Your task to perform on an android device: turn off wifi Image 0: 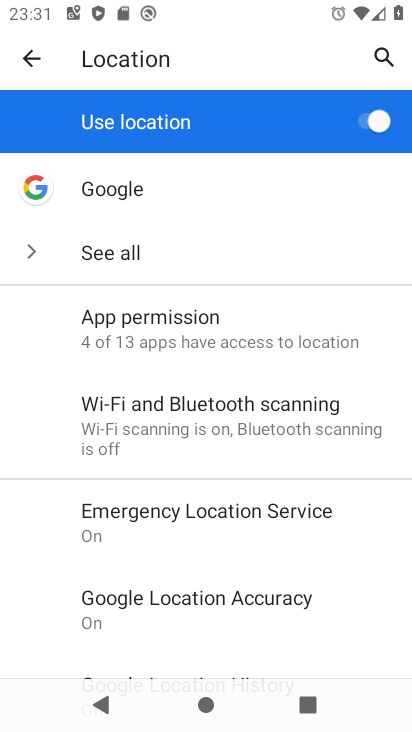
Step 0: press home button
Your task to perform on an android device: turn off wifi Image 1: 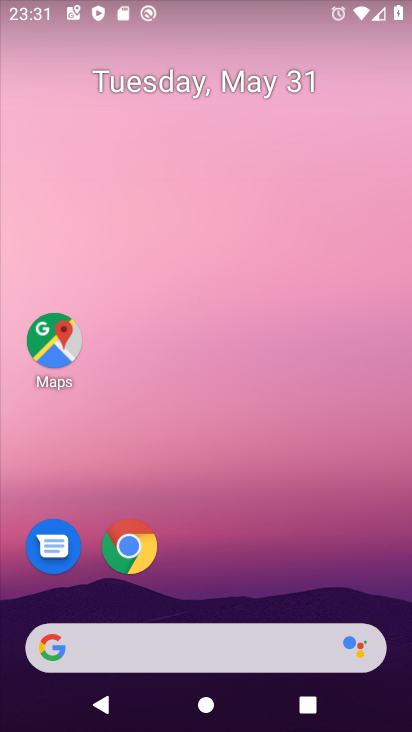
Step 1: drag from (257, 563) to (241, 164)
Your task to perform on an android device: turn off wifi Image 2: 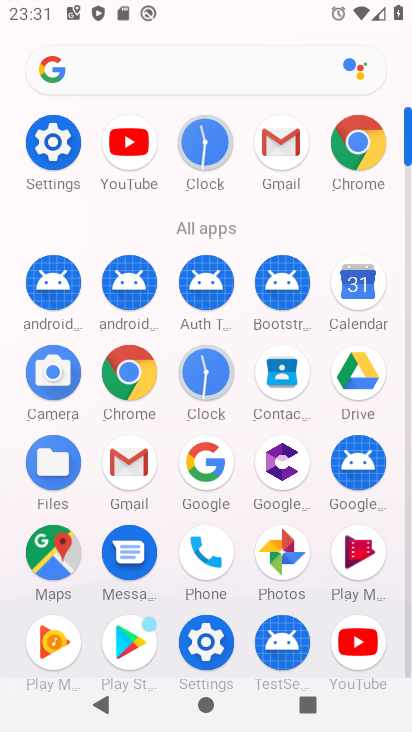
Step 2: click (50, 167)
Your task to perform on an android device: turn off wifi Image 3: 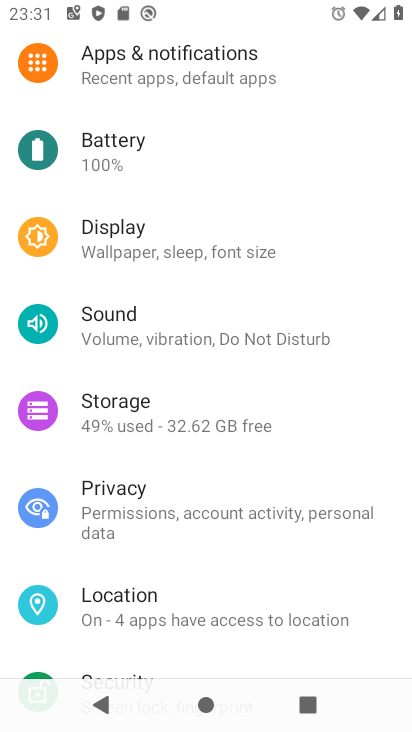
Step 3: drag from (163, 133) to (177, 431)
Your task to perform on an android device: turn off wifi Image 4: 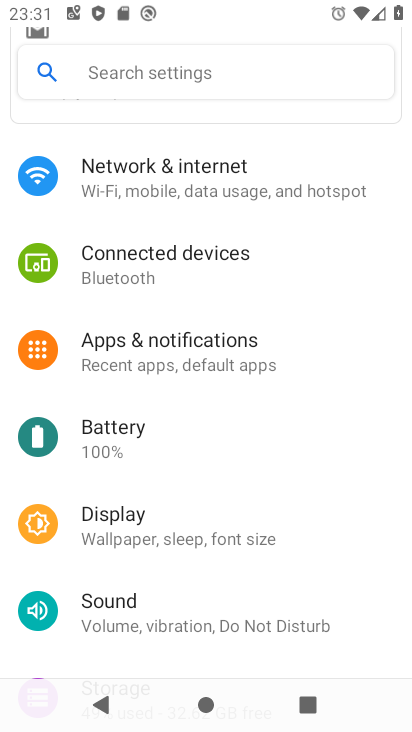
Step 4: click (262, 156)
Your task to perform on an android device: turn off wifi Image 5: 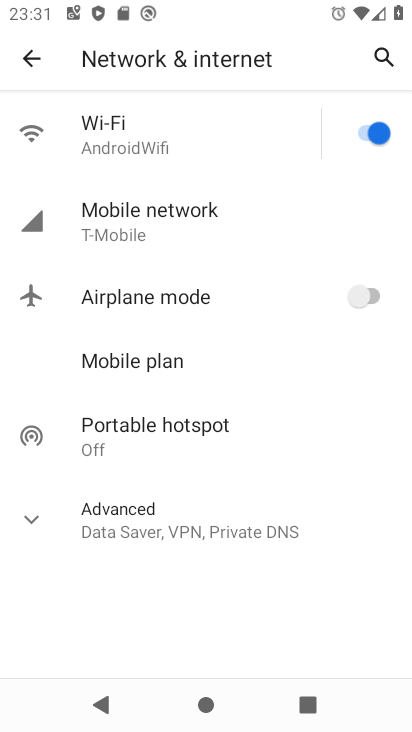
Step 5: click (369, 149)
Your task to perform on an android device: turn off wifi Image 6: 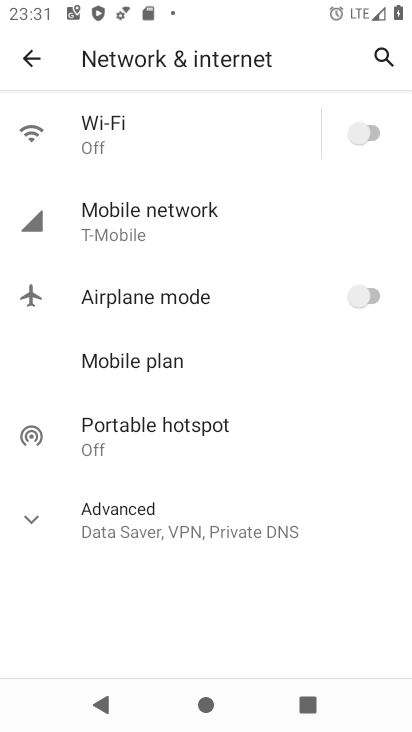
Step 6: task complete